Your task to perform on an android device: change notifications settings Image 0: 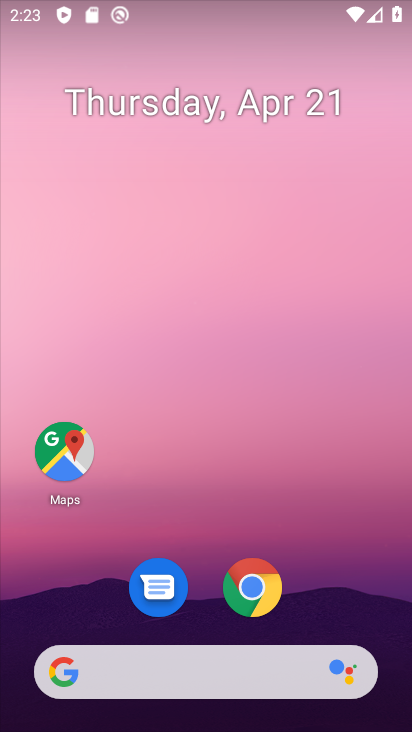
Step 0: click (360, 157)
Your task to perform on an android device: change notifications settings Image 1: 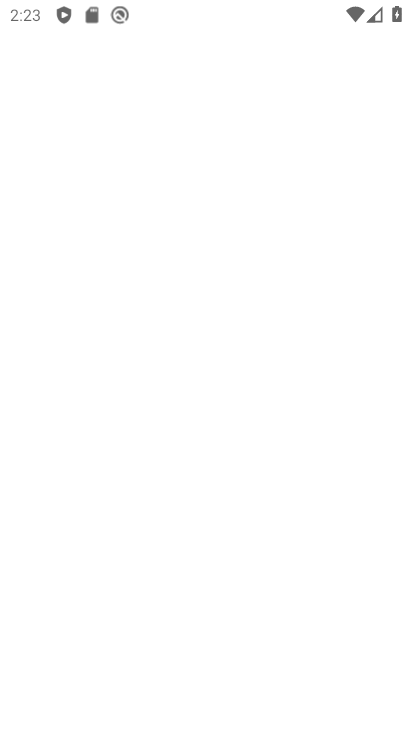
Step 1: press home button
Your task to perform on an android device: change notifications settings Image 2: 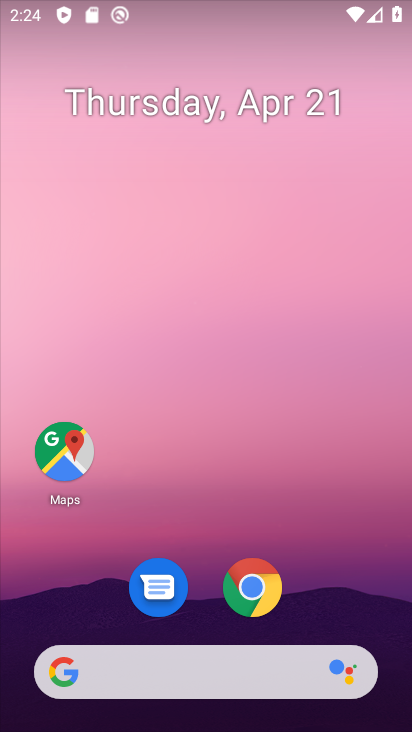
Step 2: drag from (349, 578) to (349, 86)
Your task to perform on an android device: change notifications settings Image 3: 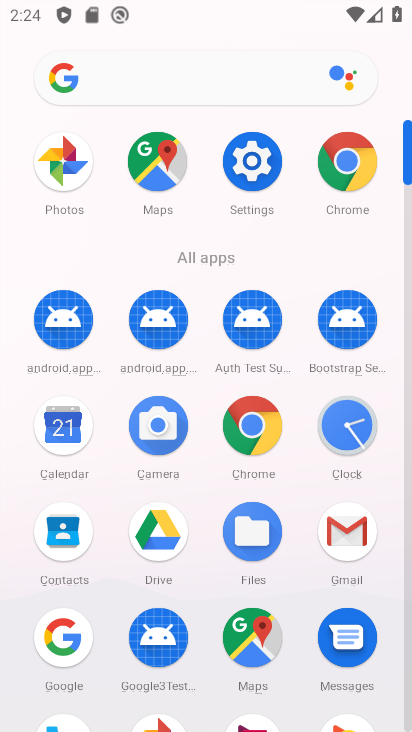
Step 3: click (262, 181)
Your task to perform on an android device: change notifications settings Image 4: 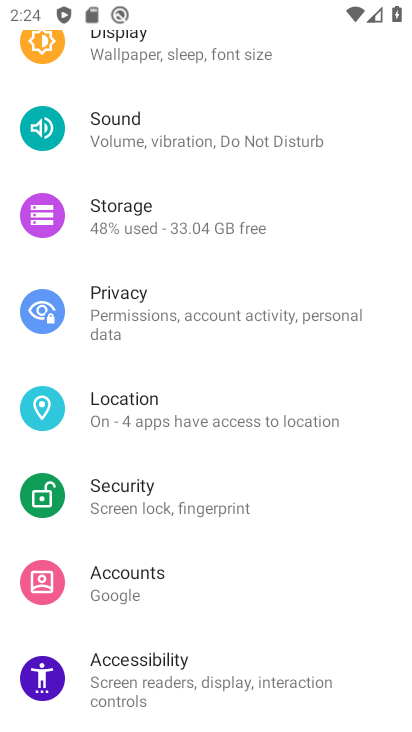
Step 4: drag from (350, 577) to (372, 411)
Your task to perform on an android device: change notifications settings Image 5: 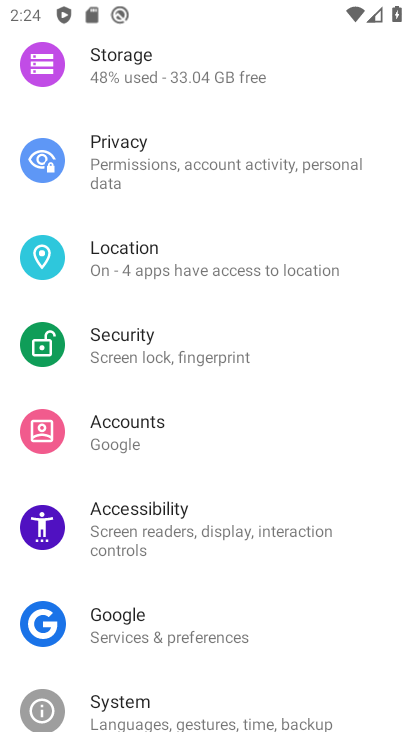
Step 5: drag from (362, 583) to (384, 467)
Your task to perform on an android device: change notifications settings Image 6: 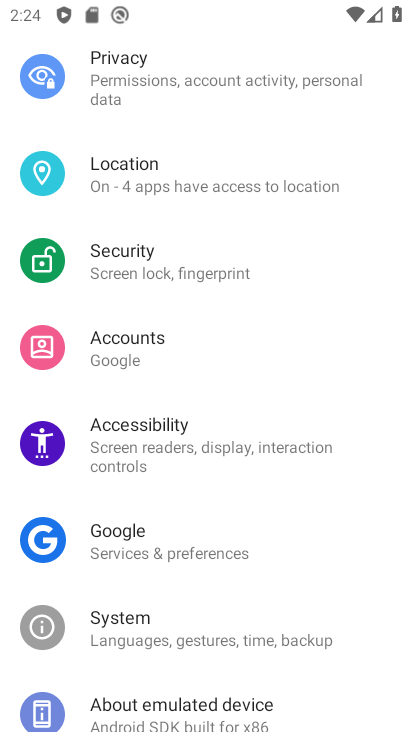
Step 6: drag from (309, 531) to (312, 326)
Your task to perform on an android device: change notifications settings Image 7: 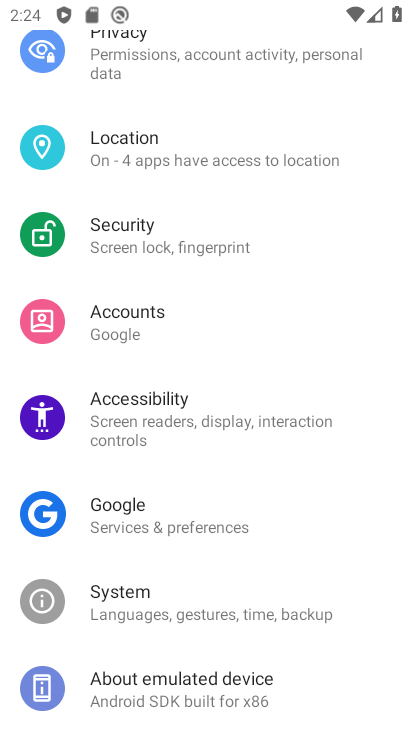
Step 7: drag from (367, 560) to (360, 363)
Your task to perform on an android device: change notifications settings Image 8: 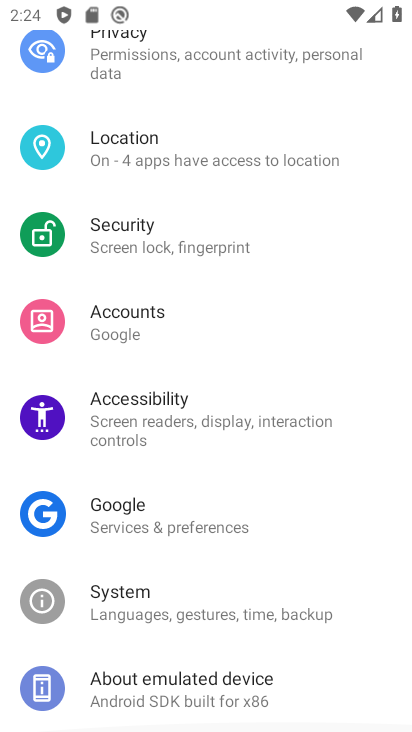
Step 8: drag from (355, 368) to (356, 490)
Your task to perform on an android device: change notifications settings Image 9: 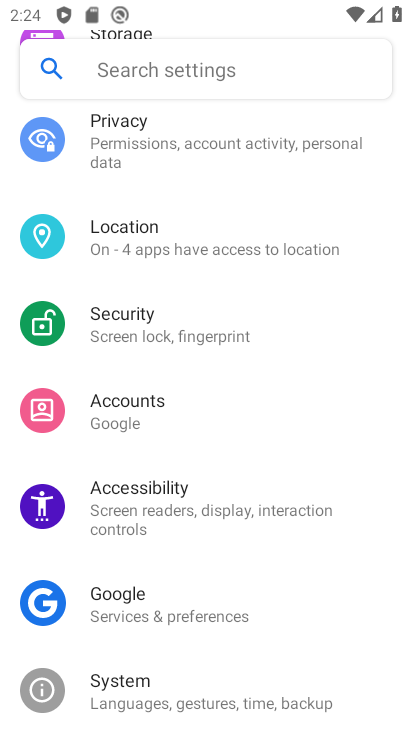
Step 9: drag from (366, 383) to (374, 499)
Your task to perform on an android device: change notifications settings Image 10: 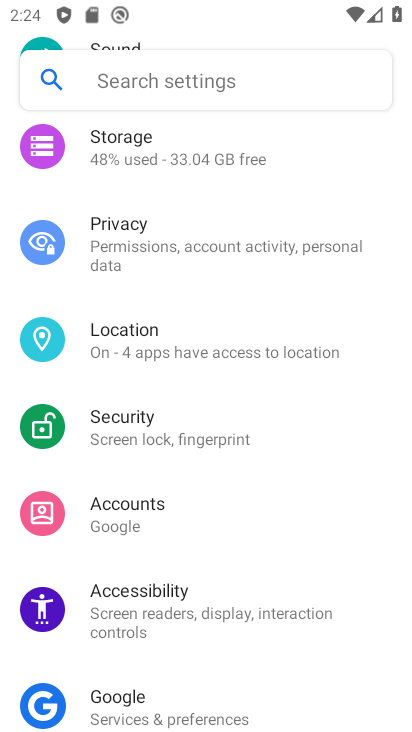
Step 10: drag from (359, 349) to (356, 486)
Your task to perform on an android device: change notifications settings Image 11: 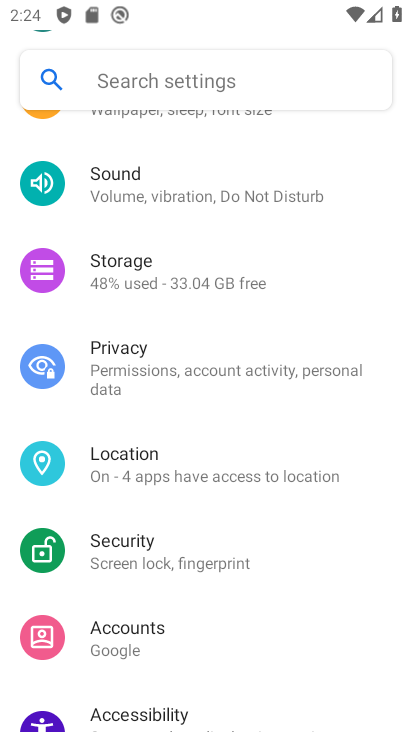
Step 11: drag from (363, 397) to (356, 483)
Your task to perform on an android device: change notifications settings Image 12: 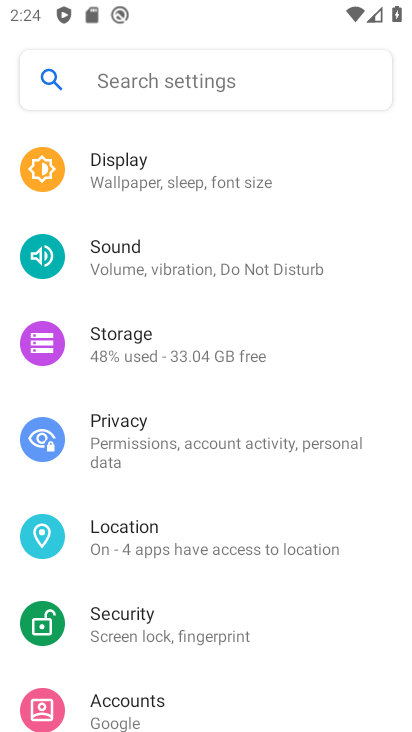
Step 12: drag from (357, 351) to (362, 497)
Your task to perform on an android device: change notifications settings Image 13: 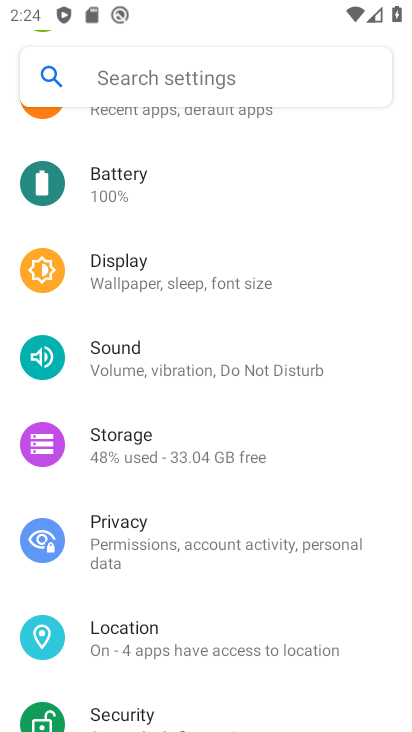
Step 13: drag from (357, 335) to (343, 461)
Your task to perform on an android device: change notifications settings Image 14: 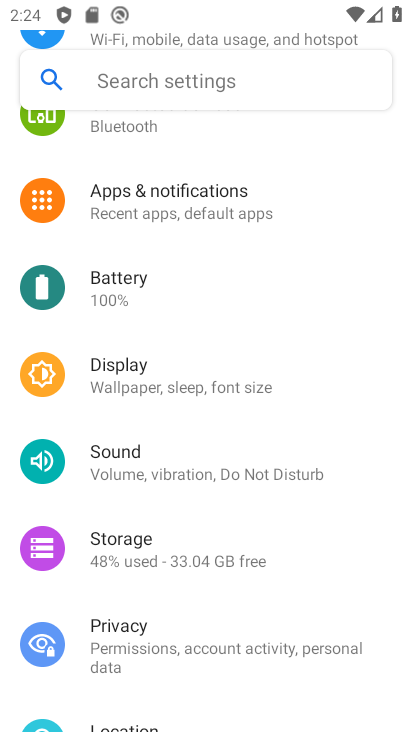
Step 14: drag from (330, 322) to (333, 473)
Your task to perform on an android device: change notifications settings Image 15: 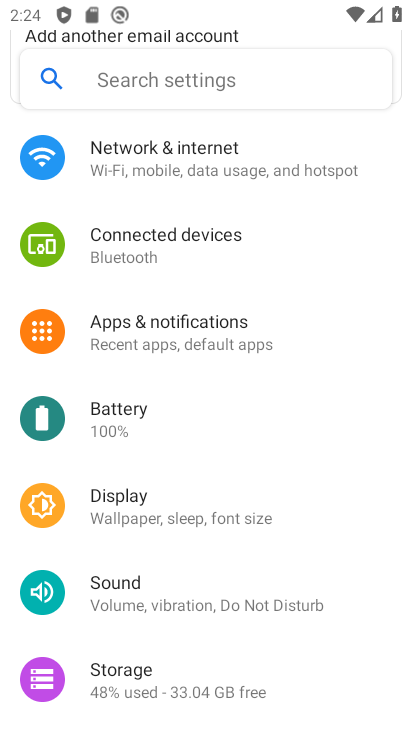
Step 15: drag from (345, 355) to (347, 449)
Your task to perform on an android device: change notifications settings Image 16: 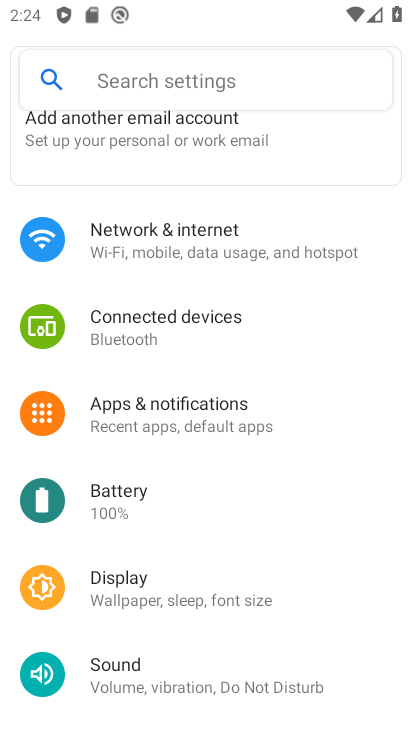
Step 16: drag from (362, 410) to (360, 485)
Your task to perform on an android device: change notifications settings Image 17: 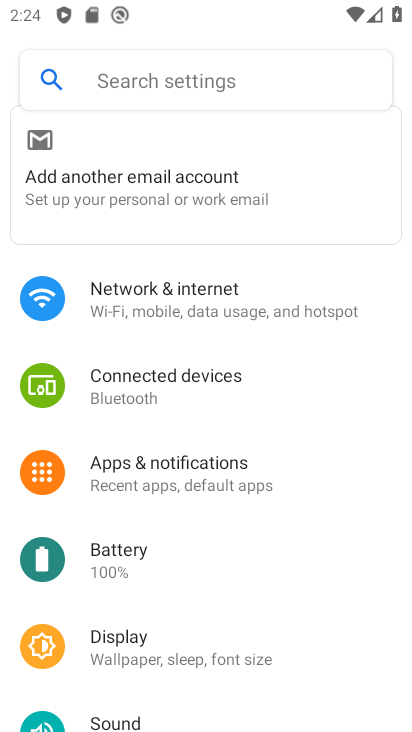
Step 17: click (230, 477)
Your task to perform on an android device: change notifications settings Image 18: 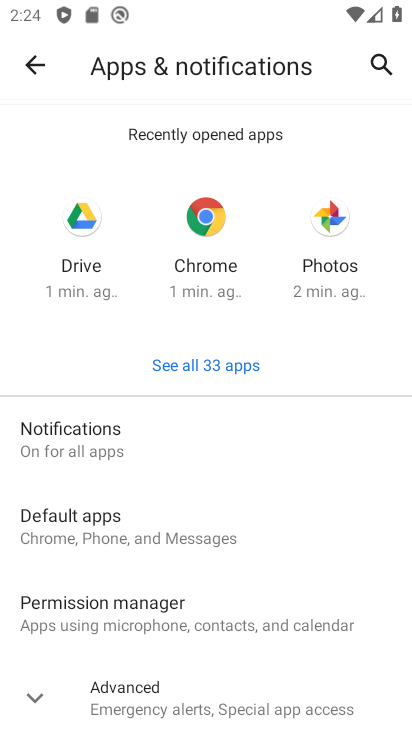
Step 18: click (104, 441)
Your task to perform on an android device: change notifications settings Image 19: 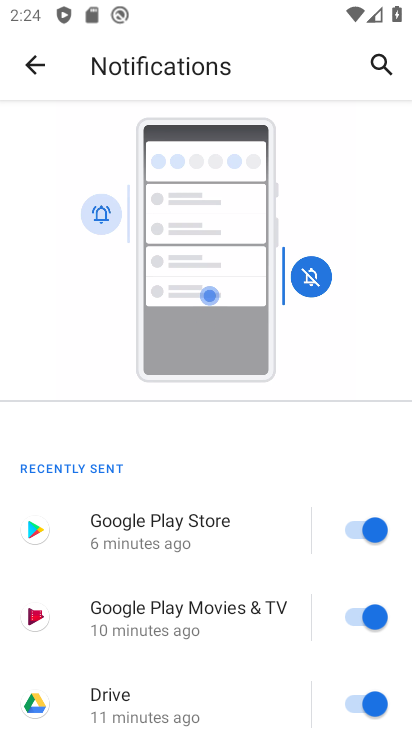
Step 19: drag from (273, 530) to (293, 300)
Your task to perform on an android device: change notifications settings Image 20: 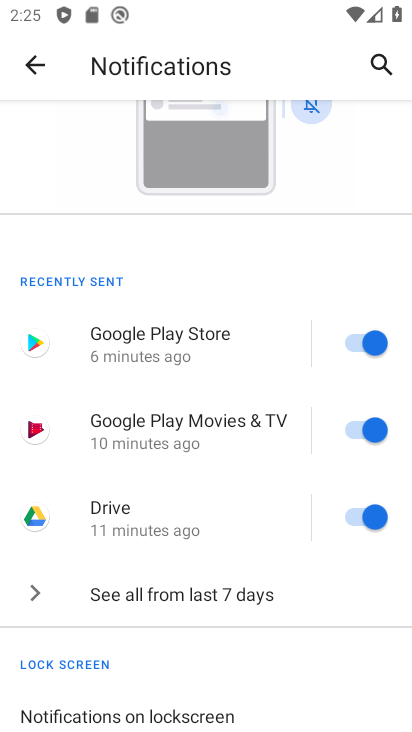
Step 20: click (367, 340)
Your task to perform on an android device: change notifications settings Image 21: 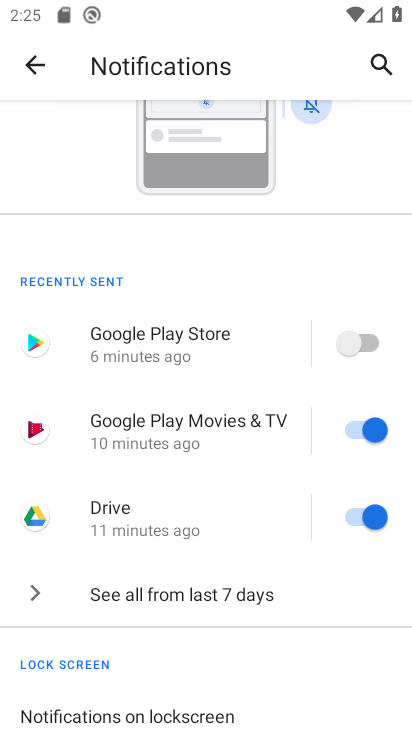
Step 21: click (374, 434)
Your task to perform on an android device: change notifications settings Image 22: 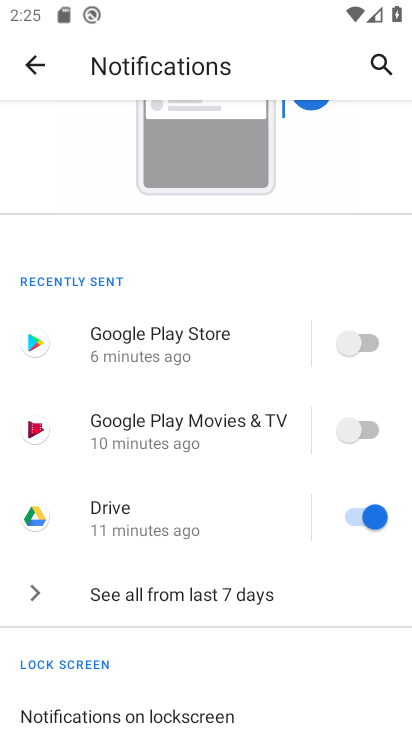
Step 22: click (374, 511)
Your task to perform on an android device: change notifications settings Image 23: 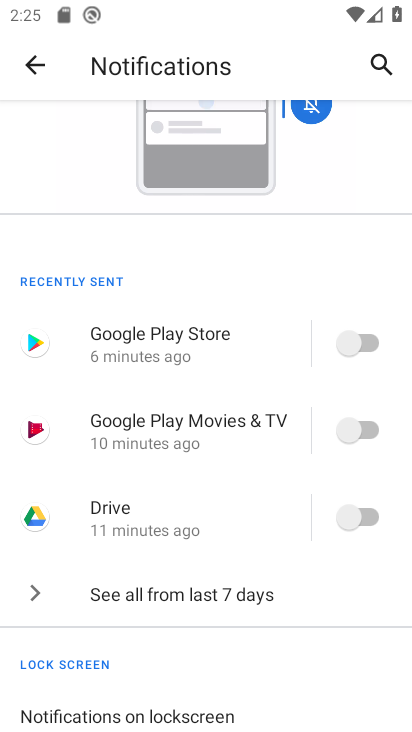
Step 23: task complete